Your task to perform on an android device: Check the news Image 0: 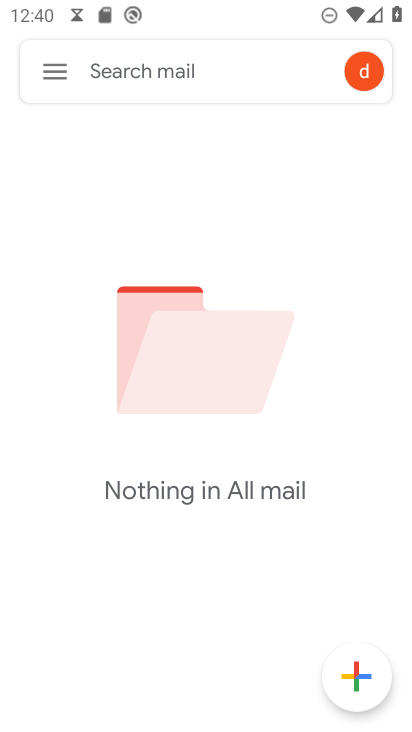
Step 0: press home button
Your task to perform on an android device: Check the news Image 1: 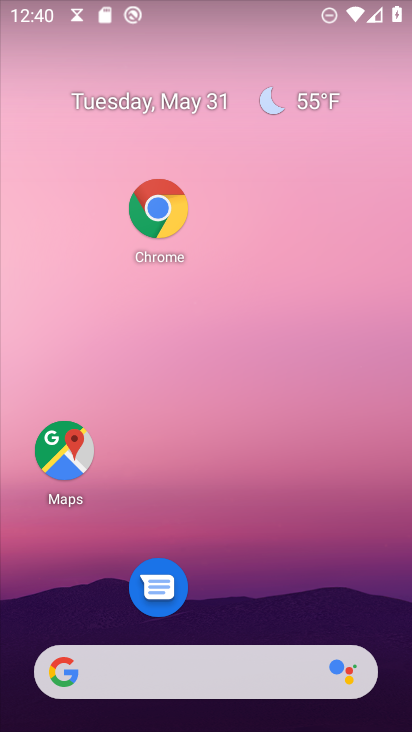
Step 1: click (166, 185)
Your task to perform on an android device: Check the news Image 2: 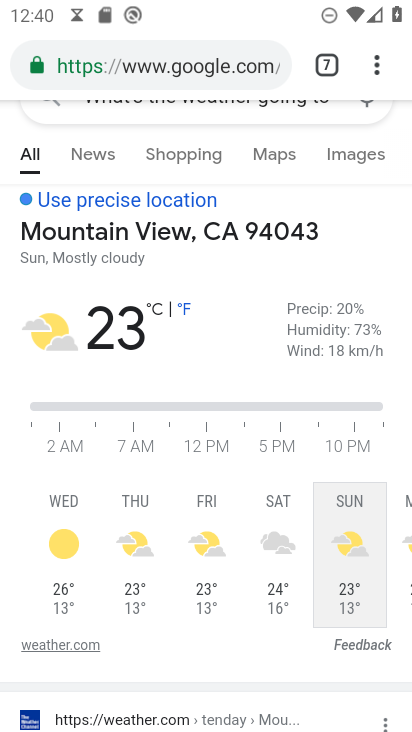
Step 2: click (324, 60)
Your task to perform on an android device: Check the news Image 3: 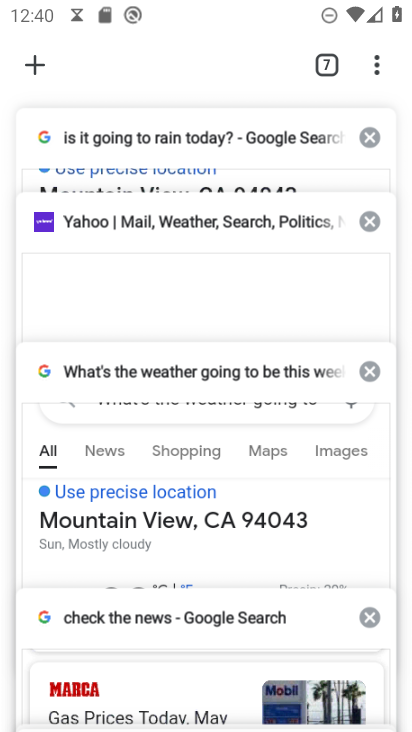
Step 3: click (118, 635)
Your task to perform on an android device: Check the news Image 4: 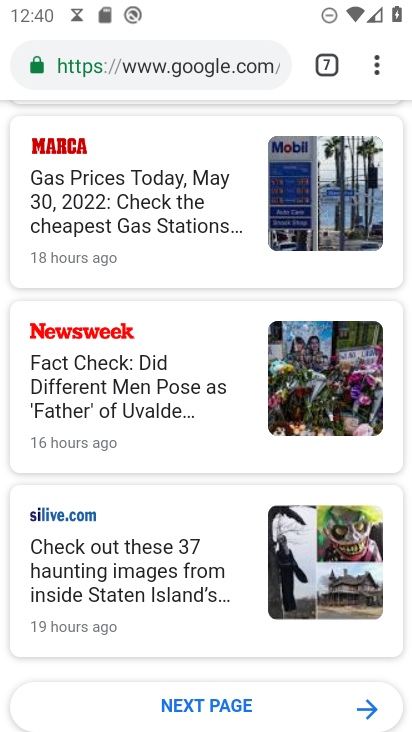
Step 4: task complete